Your task to perform on an android device: Go to Reddit.com Image 0: 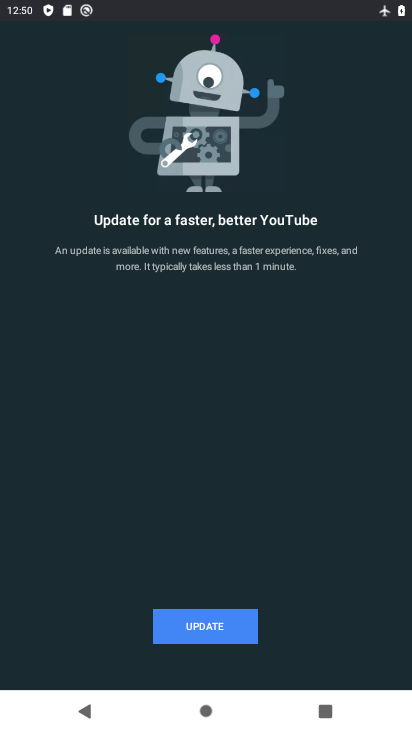
Step 0: press home button
Your task to perform on an android device: Go to Reddit.com Image 1: 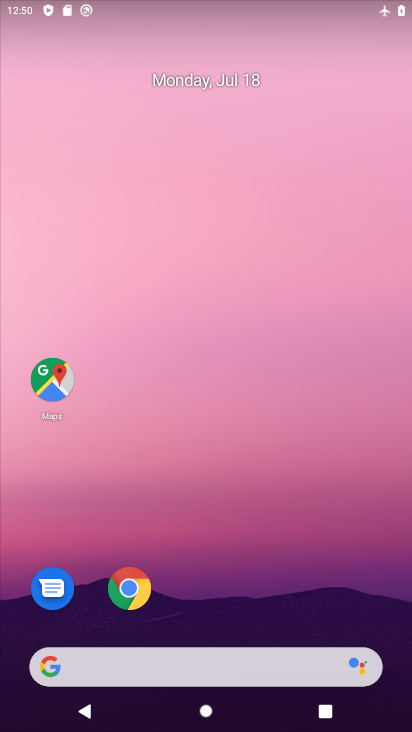
Step 1: click (130, 608)
Your task to perform on an android device: Go to Reddit.com Image 2: 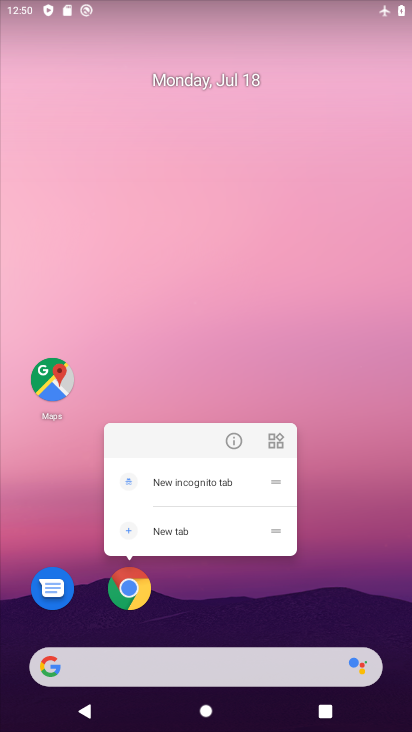
Step 2: click (137, 603)
Your task to perform on an android device: Go to Reddit.com Image 3: 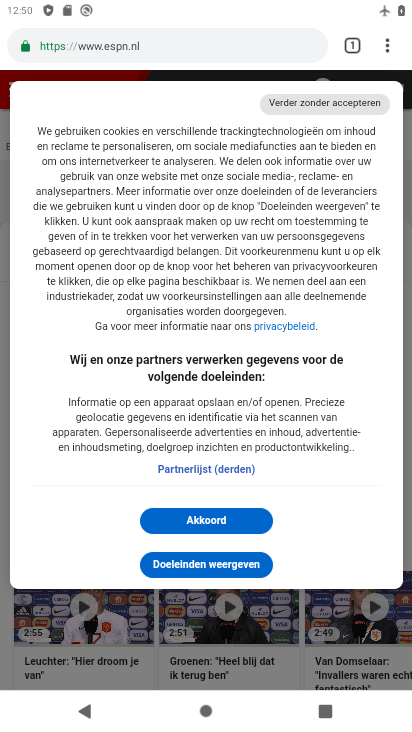
Step 3: click (160, 41)
Your task to perform on an android device: Go to Reddit.com Image 4: 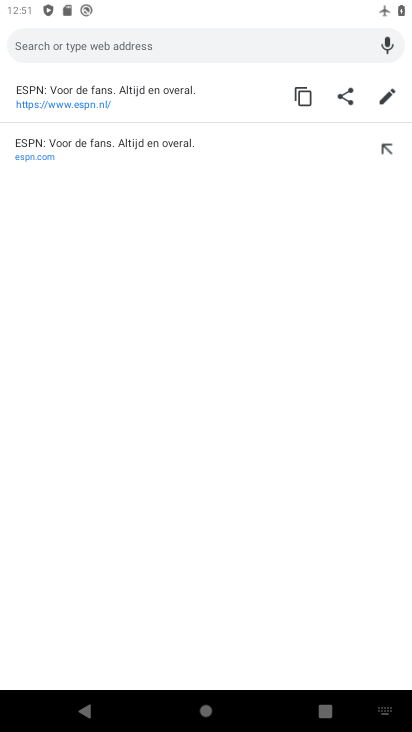
Step 4: type "reddit.com"
Your task to perform on an android device: Go to Reddit.com Image 5: 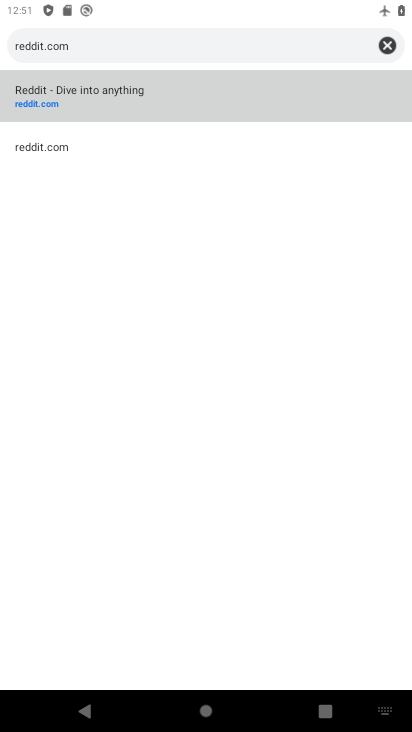
Step 5: click (157, 91)
Your task to perform on an android device: Go to Reddit.com Image 6: 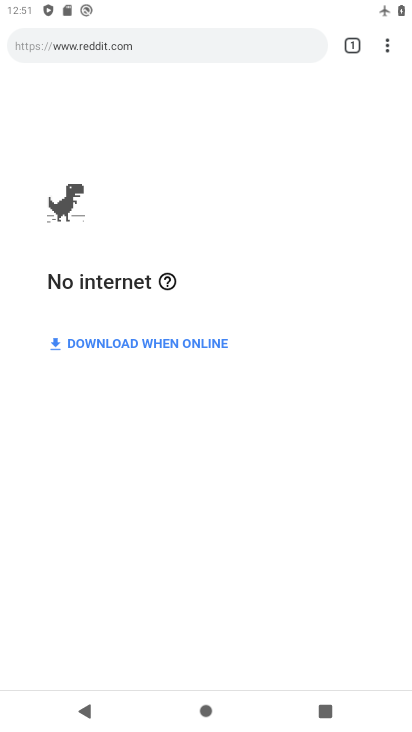
Step 6: task complete